Your task to perform on an android device: Play the last video I watched on Youtube Image 0: 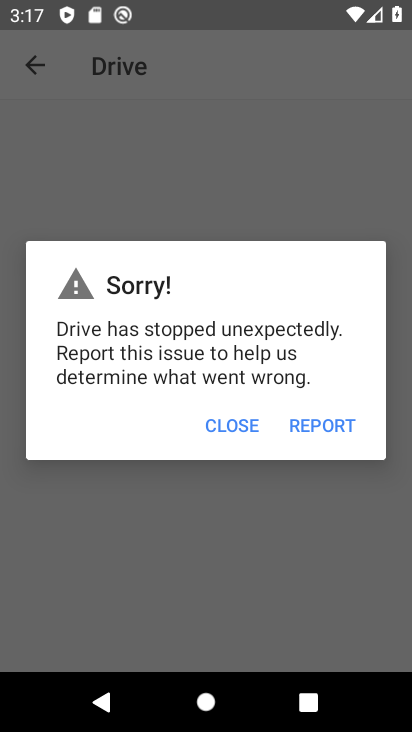
Step 0: press home button
Your task to perform on an android device: Play the last video I watched on Youtube Image 1: 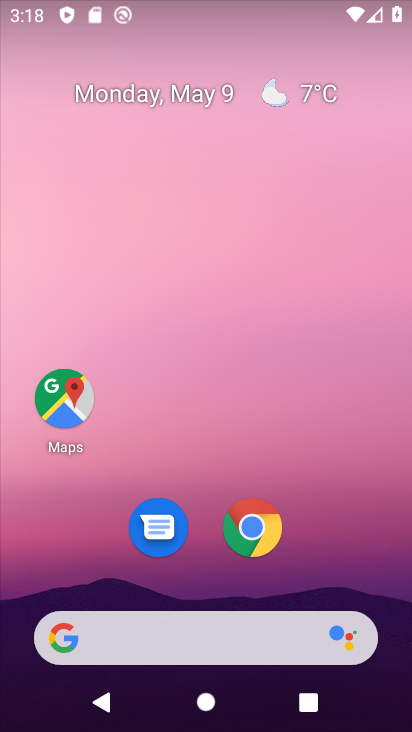
Step 1: drag from (380, 583) to (269, 150)
Your task to perform on an android device: Play the last video I watched on Youtube Image 2: 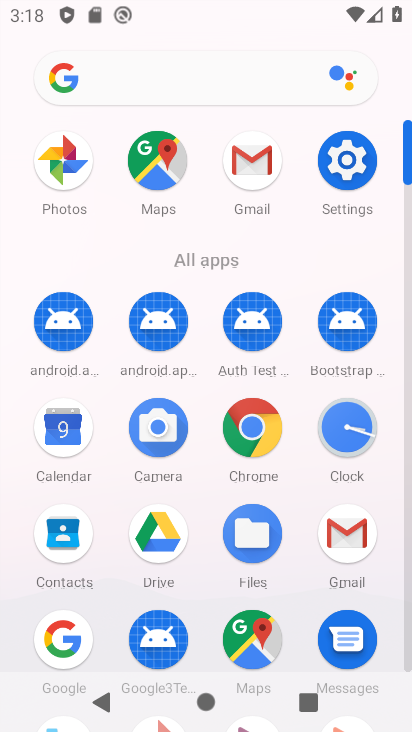
Step 2: click (408, 650)
Your task to perform on an android device: Play the last video I watched on Youtube Image 3: 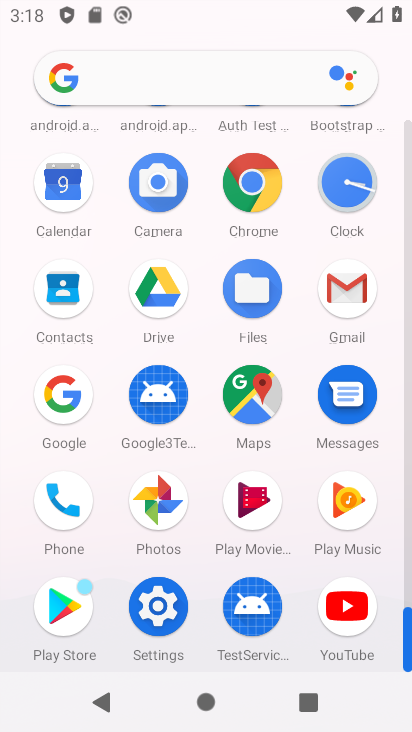
Step 3: click (338, 606)
Your task to perform on an android device: Play the last video I watched on Youtube Image 4: 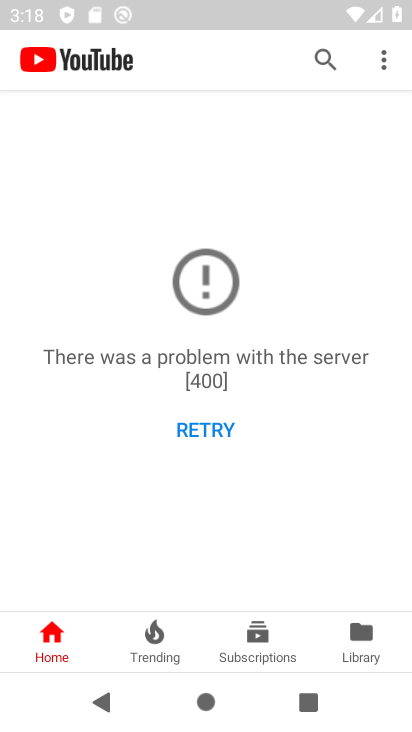
Step 4: task complete